Your task to perform on an android device: open device folders in google photos Image 0: 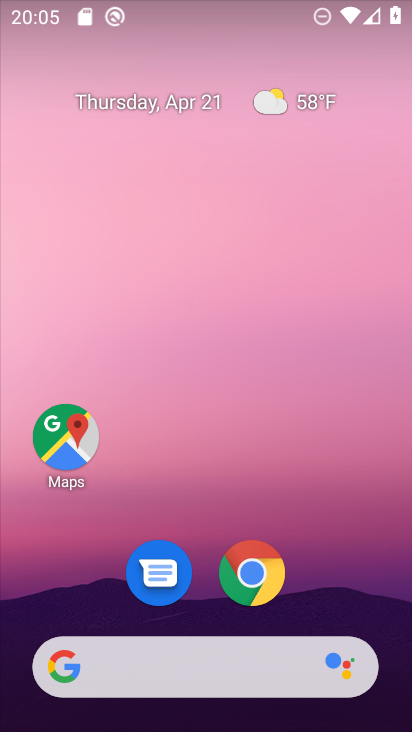
Step 0: drag from (199, 644) to (250, 178)
Your task to perform on an android device: open device folders in google photos Image 1: 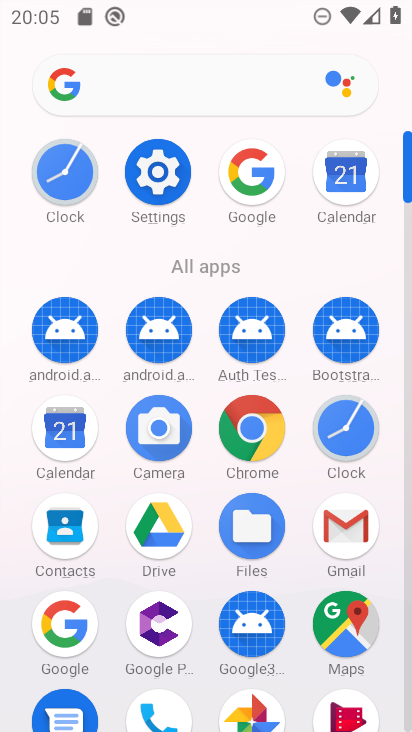
Step 1: drag from (207, 626) to (209, 216)
Your task to perform on an android device: open device folders in google photos Image 2: 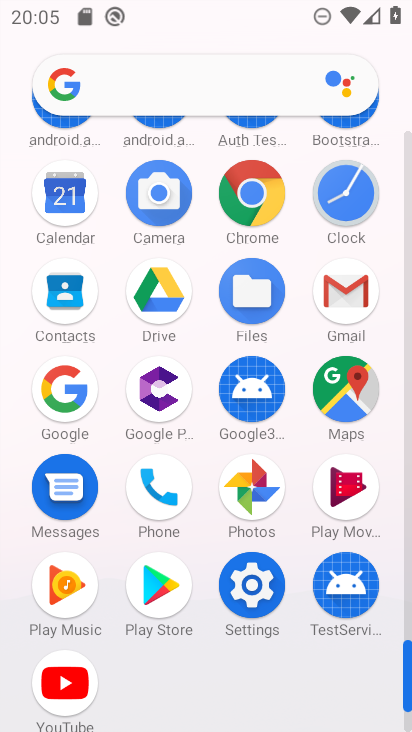
Step 2: click (248, 489)
Your task to perform on an android device: open device folders in google photos Image 3: 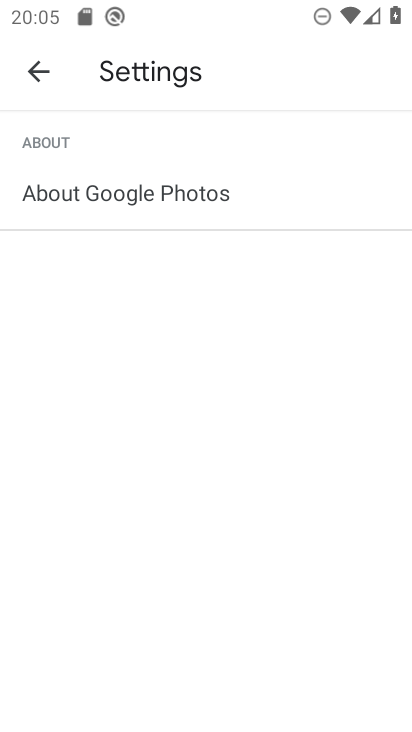
Step 3: click (39, 69)
Your task to perform on an android device: open device folders in google photos Image 4: 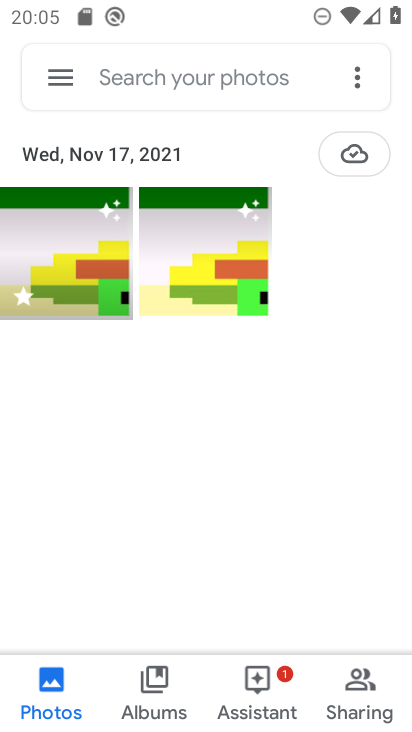
Step 4: click (52, 78)
Your task to perform on an android device: open device folders in google photos Image 5: 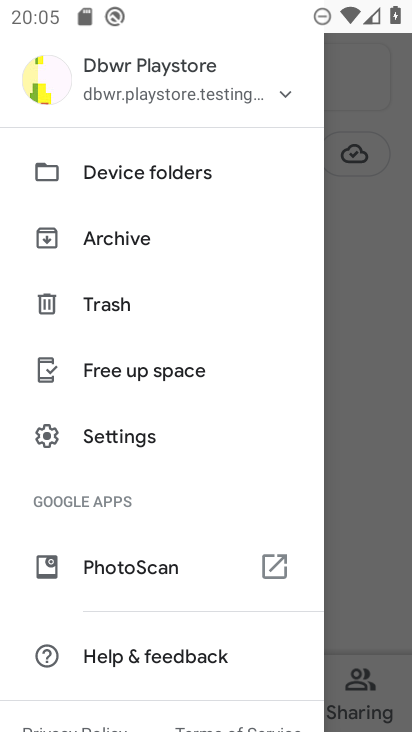
Step 5: click (106, 157)
Your task to perform on an android device: open device folders in google photos Image 6: 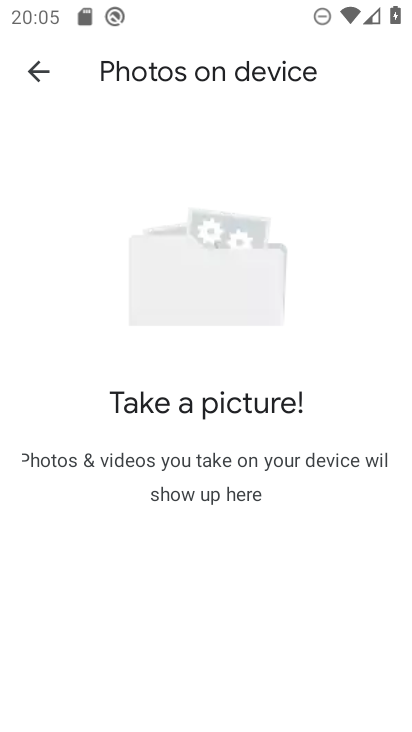
Step 6: task complete